Your task to perform on an android device: Open the calendar app, open the side menu, and click the "Day" option Image 0: 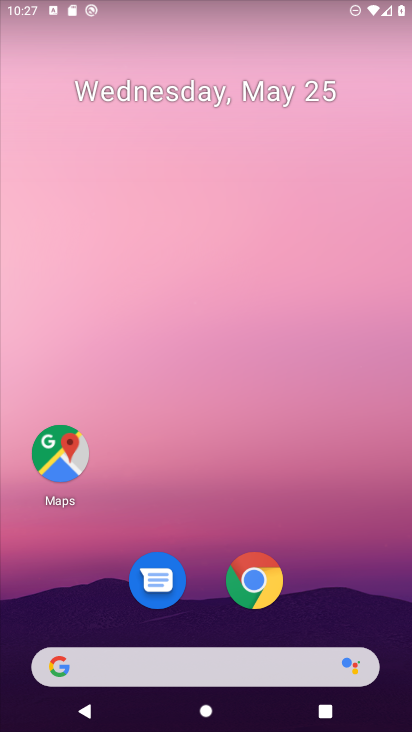
Step 0: drag from (37, 463) to (116, 136)
Your task to perform on an android device: Open the calendar app, open the side menu, and click the "Day" option Image 1: 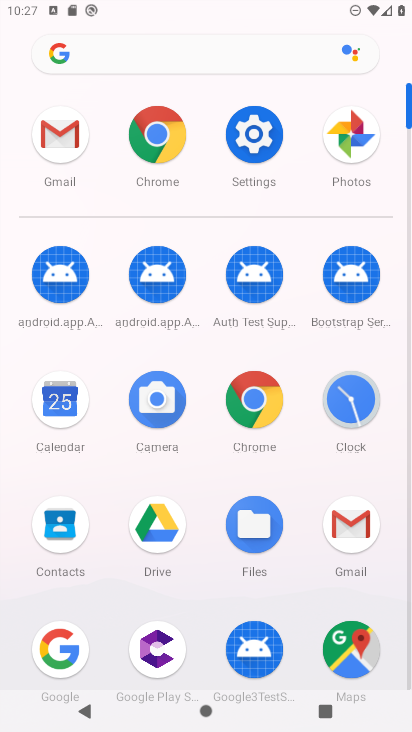
Step 1: click (75, 395)
Your task to perform on an android device: Open the calendar app, open the side menu, and click the "Day" option Image 2: 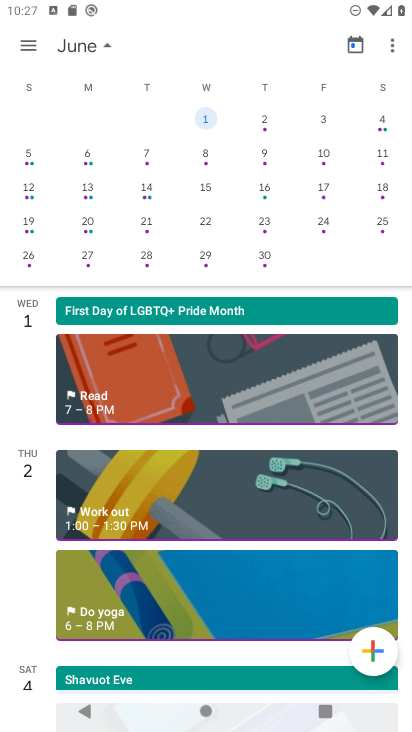
Step 2: click (20, 48)
Your task to perform on an android device: Open the calendar app, open the side menu, and click the "Day" option Image 3: 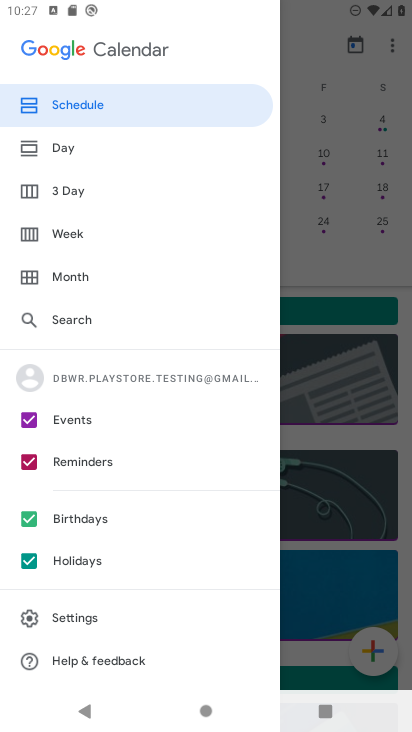
Step 3: click (66, 156)
Your task to perform on an android device: Open the calendar app, open the side menu, and click the "Day" option Image 4: 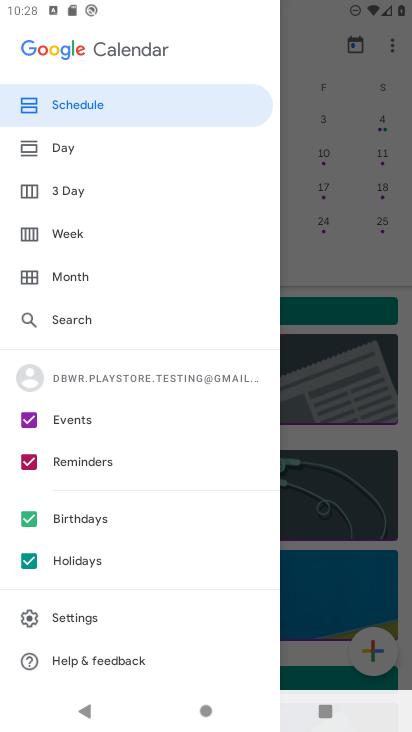
Step 4: click (60, 146)
Your task to perform on an android device: Open the calendar app, open the side menu, and click the "Day" option Image 5: 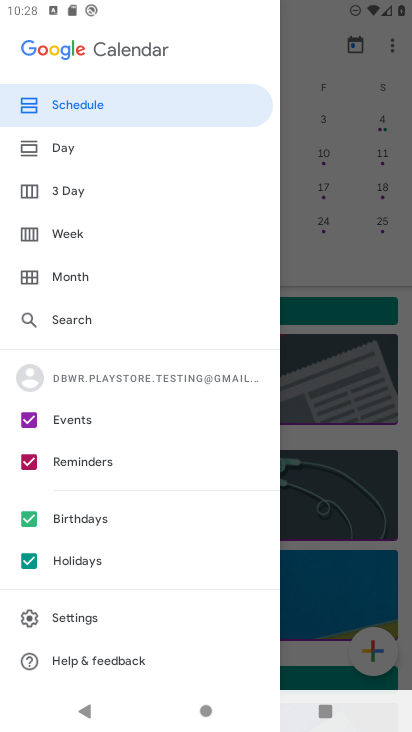
Step 5: click (80, 142)
Your task to perform on an android device: Open the calendar app, open the side menu, and click the "Day" option Image 6: 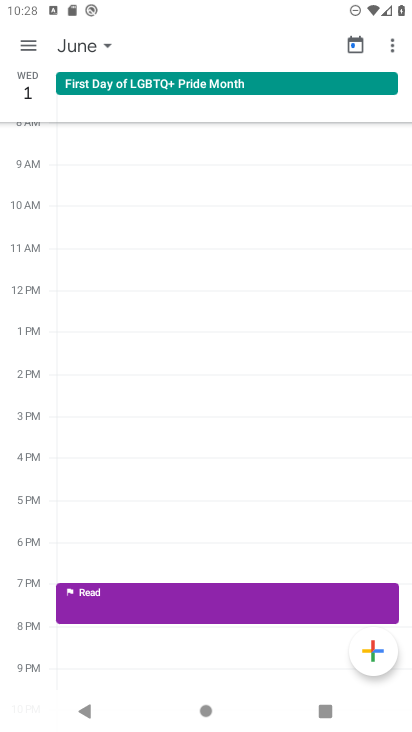
Step 6: task complete